Your task to perform on an android device: turn on notifications settings in the gmail app Image 0: 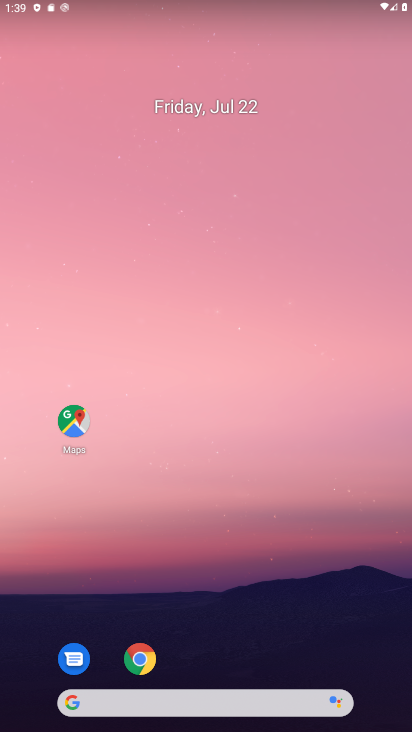
Step 0: click (135, 639)
Your task to perform on an android device: turn on notifications settings in the gmail app Image 1: 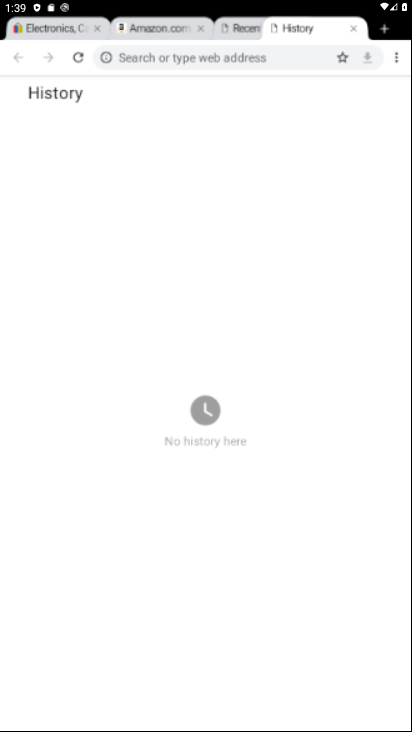
Step 1: task complete